Your task to perform on an android device: open a bookmark in the chrome app Image 0: 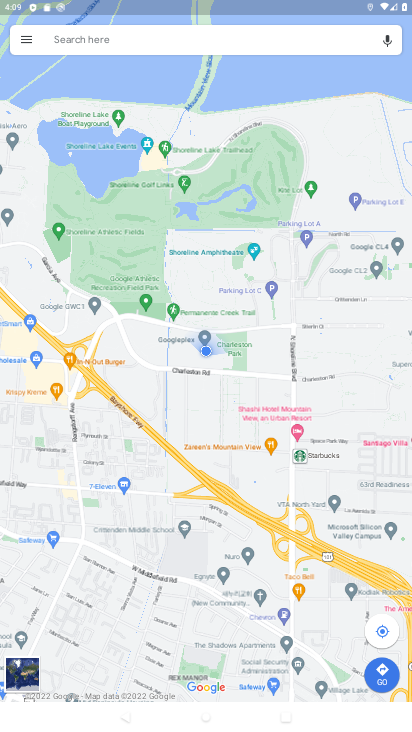
Step 0: press home button
Your task to perform on an android device: open a bookmark in the chrome app Image 1: 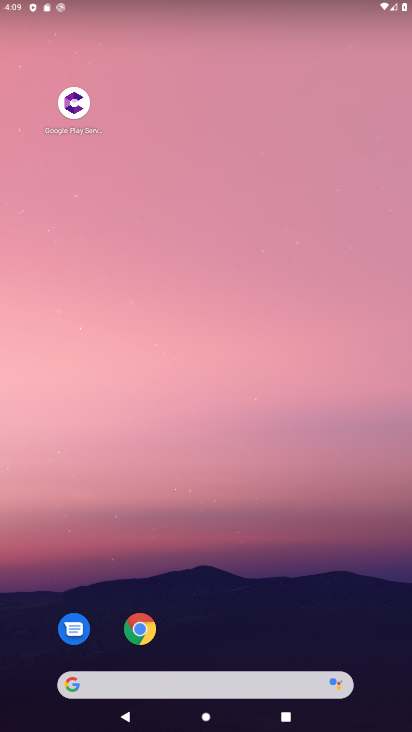
Step 1: drag from (266, 601) to (256, 9)
Your task to perform on an android device: open a bookmark in the chrome app Image 2: 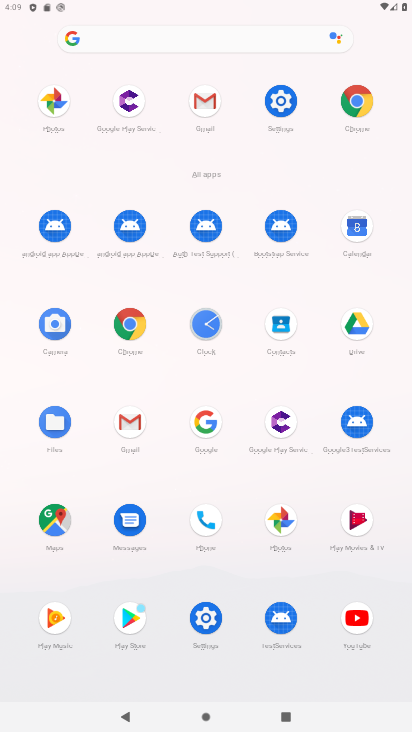
Step 2: click (353, 123)
Your task to perform on an android device: open a bookmark in the chrome app Image 3: 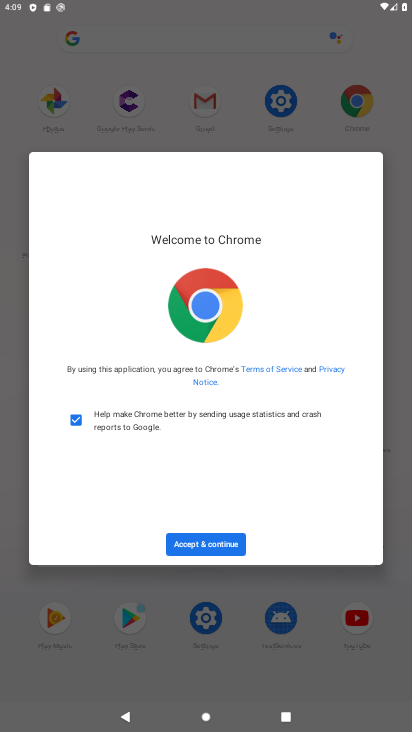
Step 3: click (202, 535)
Your task to perform on an android device: open a bookmark in the chrome app Image 4: 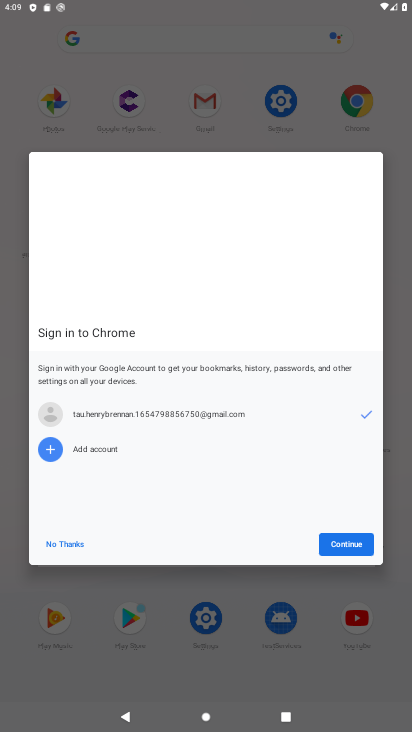
Step 4: click (326, 538)
Your task to perform on an android device: open a bookmark in the chrome app Image 5: 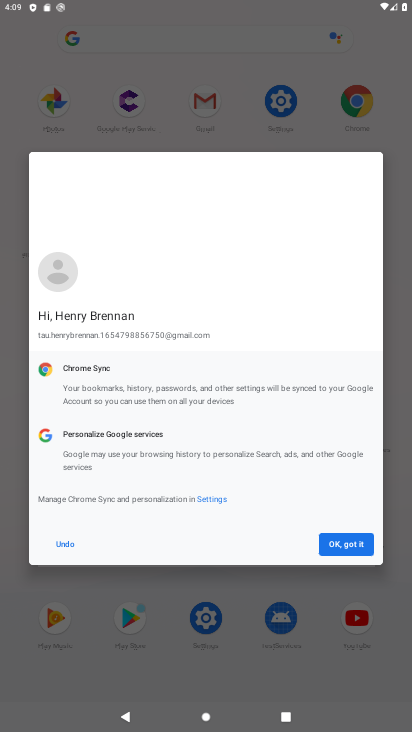
Step 5: click (326, 538)
Your task to perform on an android device: open a bookmark in the chrome app Image 6: 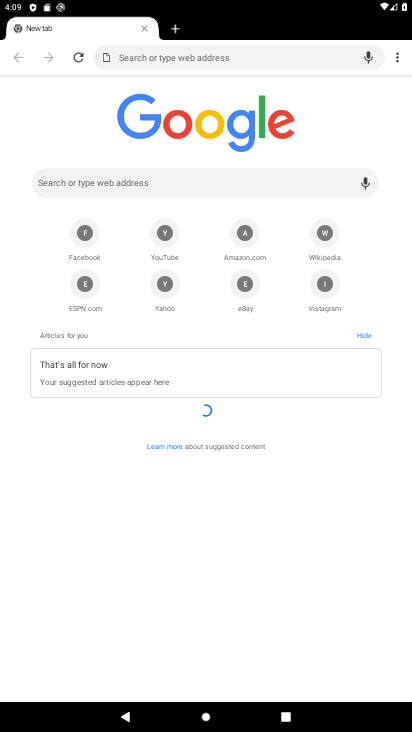
Step 6: click (392, 58)
Your task to perform on an android device: open a bookmark in the chrome app Image 7: 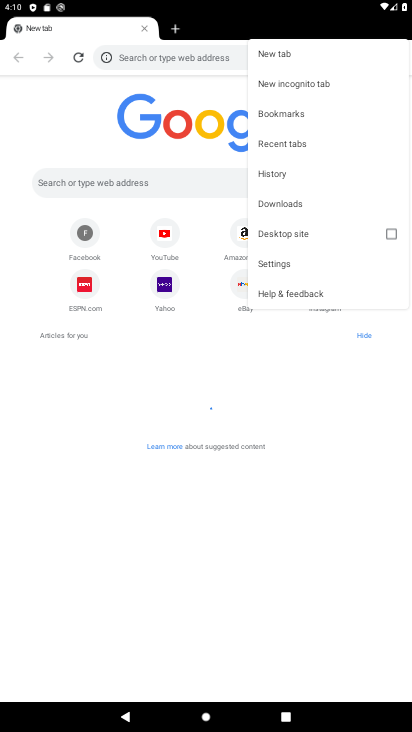
Step 7: click (293, 110)
Your task to perform on an android device: open a bookmark in the chrome app Image 8: 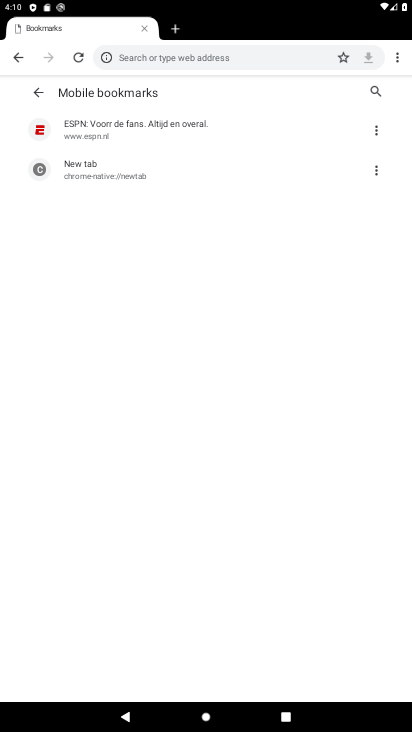
Step 8: click (154, 129)
Your task to perform on an android device: open a bookmark in the chrome app Image 9: 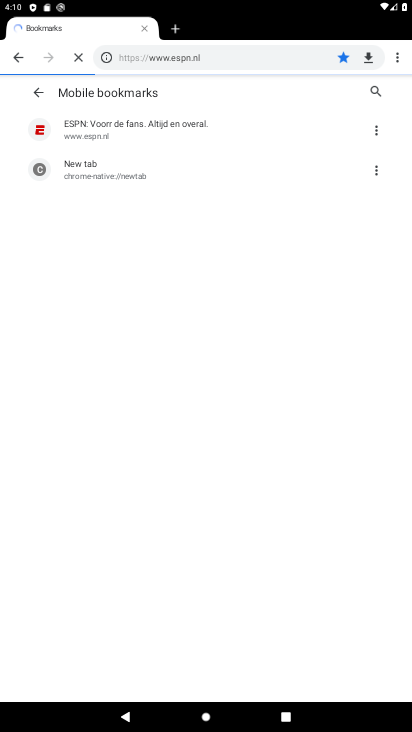
Step 9: task complete